Your task to perform on an android device: empty trash in the gmail app Image 0: 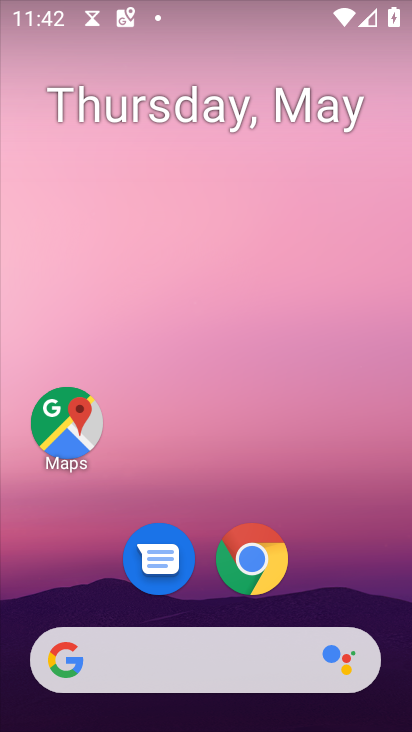
Step 0: drag from (205, 727) to (204, 235)
Your task to perform on an android device: empty trash in the gmail app Image 1: 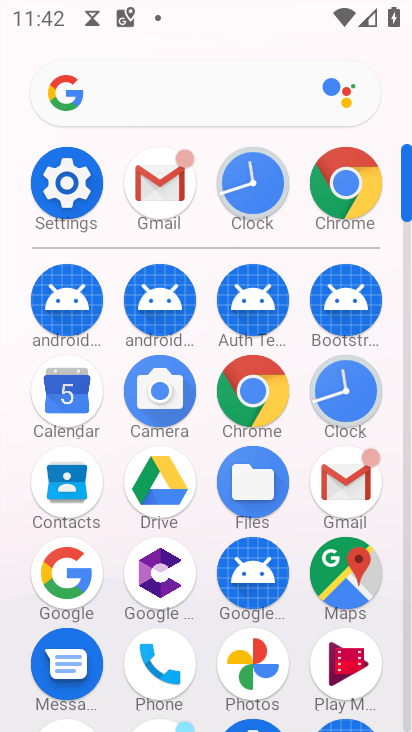
Step 1: click (340, 485)
Your task to perform on an android device: empty trash in the gmail app Image 2: 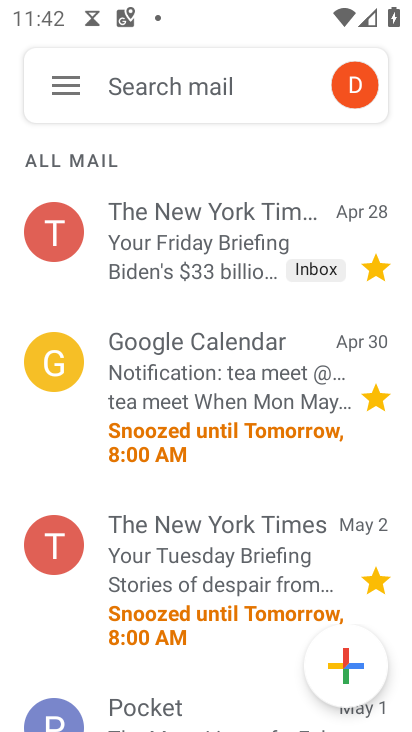
Step 2: click (64, 84)
Your task to perform on an android device: empty trash in the gmail app Image 3: 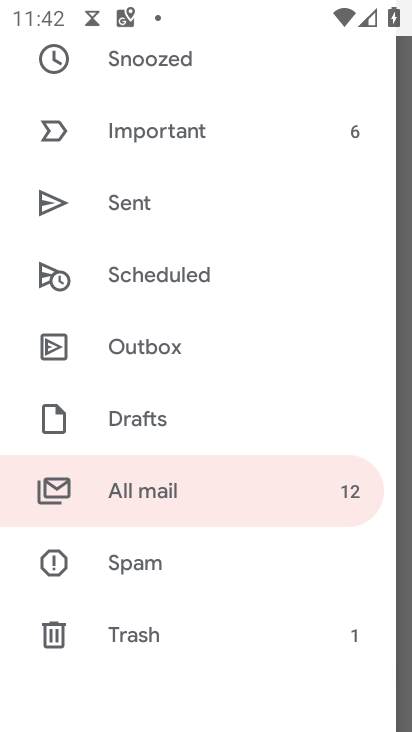
Step 3: click (142, 633)
Your task to perform on an android device: empty trash in the gmail app Image 4: 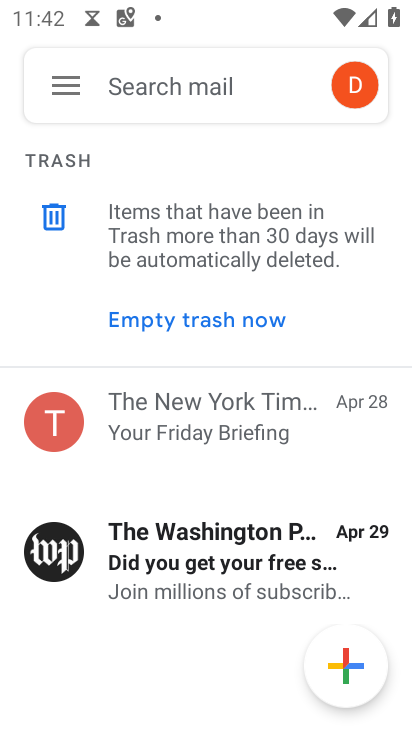
Step 4: click (185, 319)
Your task to perform on an android device: empty trash in the gmail app Image 5: 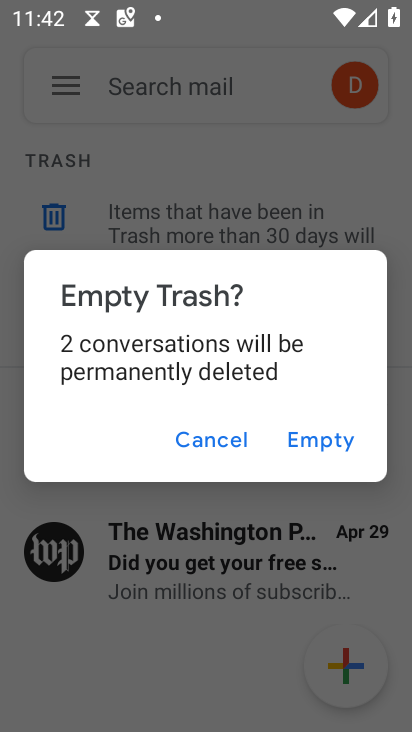
Step 5: click (332, 439)
Your task to perform on an android device: empty trash in the gmail app Image 6: 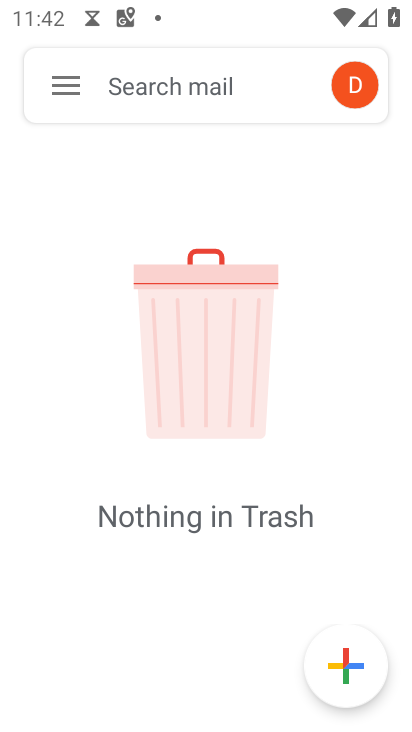
Step 6: task complete